Your task to perform on an android device: Go to Maps Image 0: 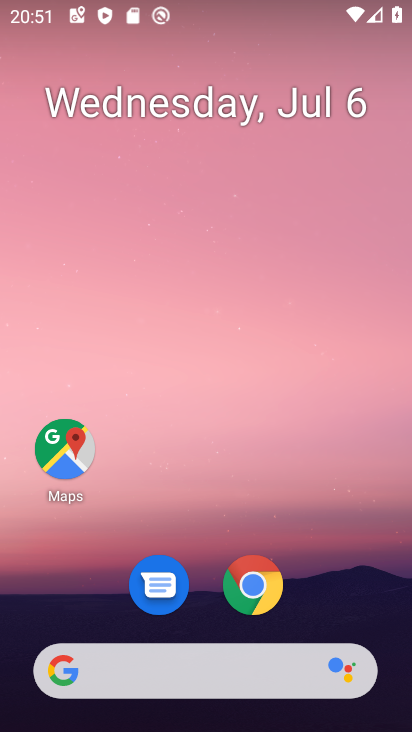
Step 0: click (64, 454)
Your task to perform on an android device: Go to Maps Image 1: 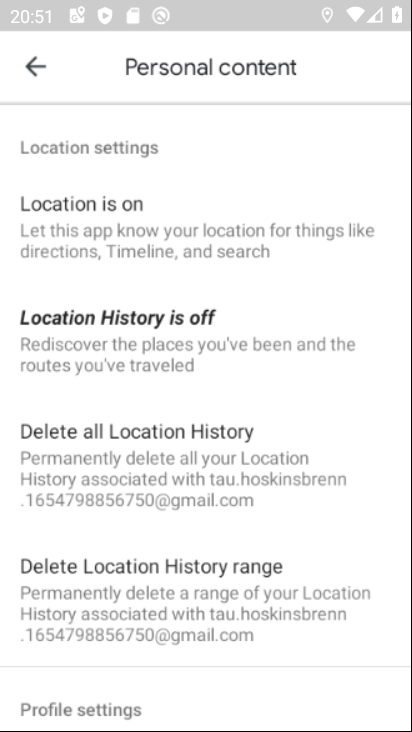
Step 1: click (31, 63)
Your task to perform on an android device: Go to Maps Image 2: 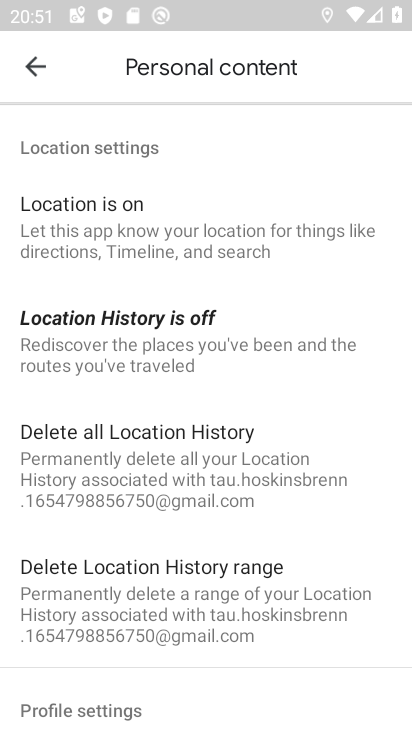
Step 2: click (39, 58)
Your task to perform on an android device: Go to Maps Image 3: 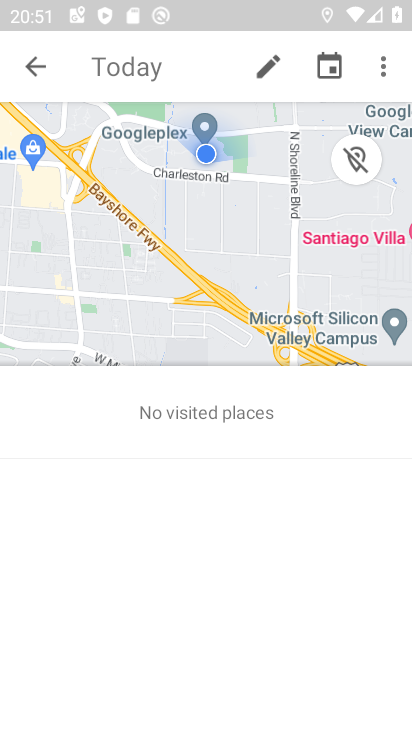
Step 3: click (34, 63)
Your task to perform on an android device: Go to Maps Image 4: 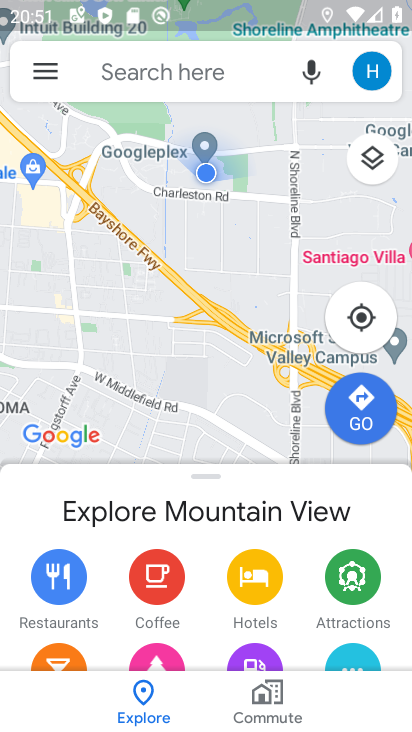
Step 4: task complete